Your task to perform on an android device: Search for seafood restaurants on Google Maps Image 0: 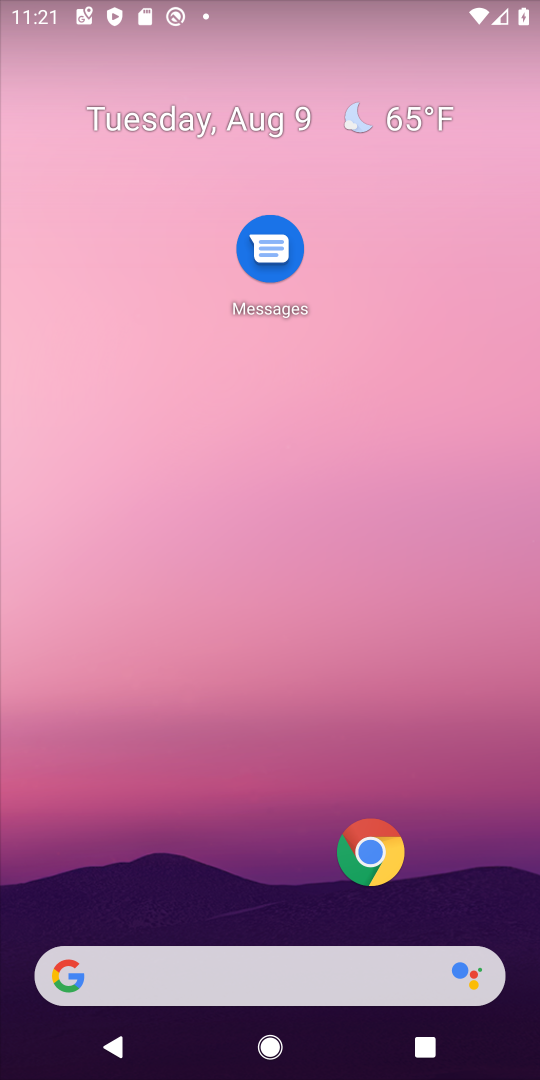
Step 0: drag from (251, 881) to (260, 265)
Your task to perform on an android device: Search for seafood restaurants on Google Maps Image 1: 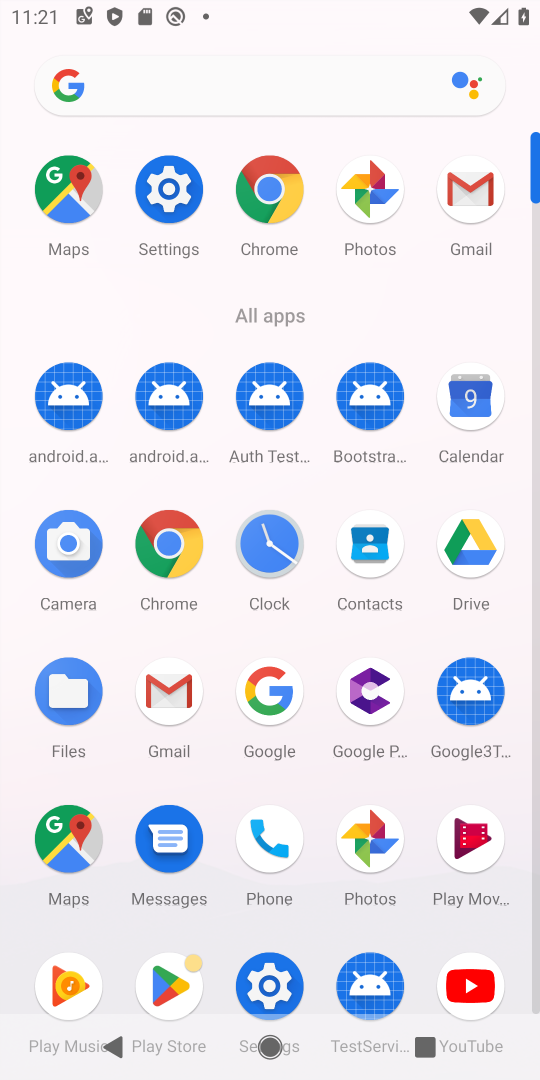
Step 1: click (67, 186)
Your task to perform on an android device: Search for seafood restaurants on Google Maps Image 2: 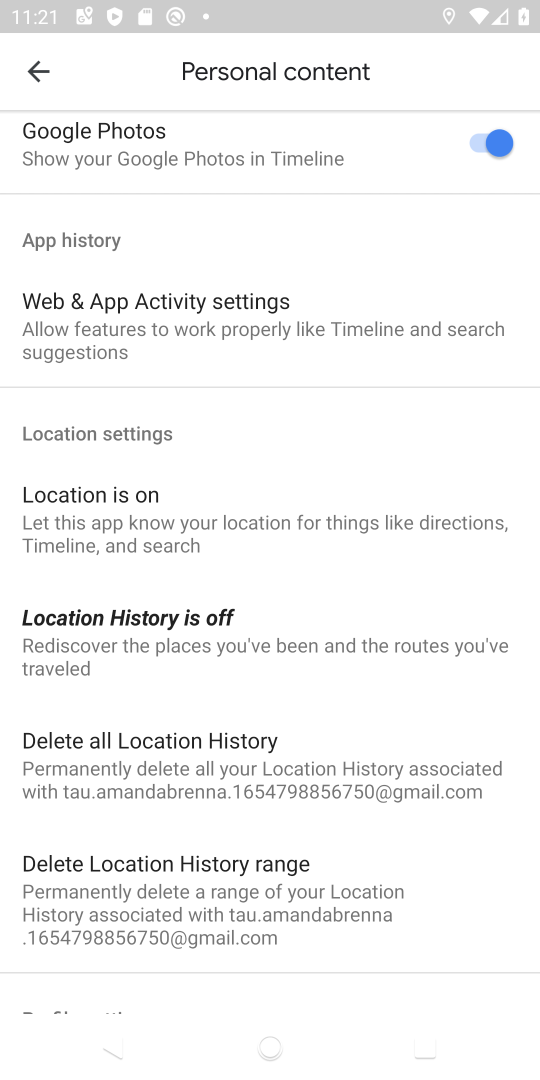
Step 2: click (51, 53)
Your task to perform on an android device: Search for seafood restaurants on Google Maps Image 3: 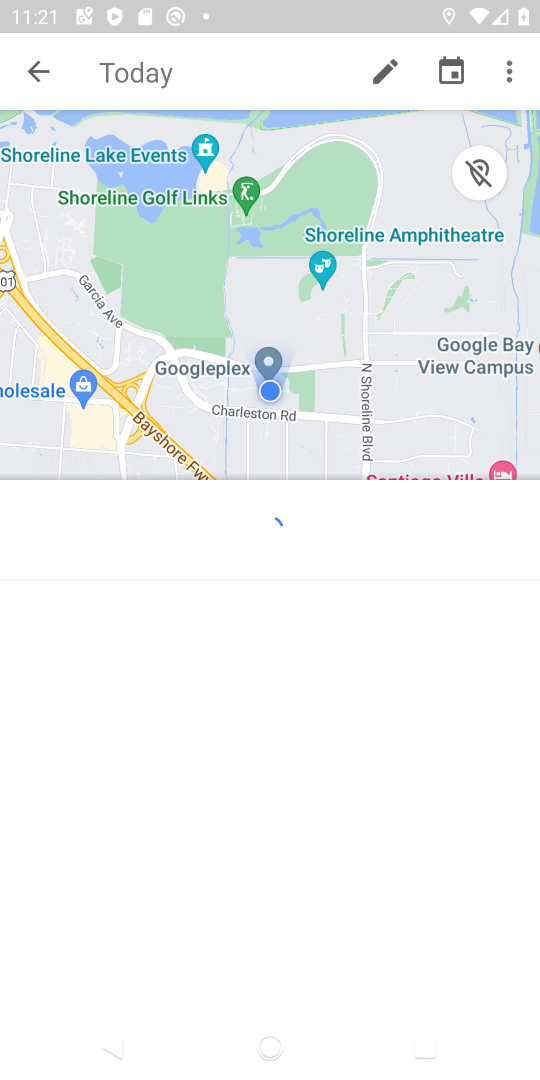
Step 3: click (51, 53)
Your task to perform on an android device: Search for seafood restaurants on Google Maps Image 4: 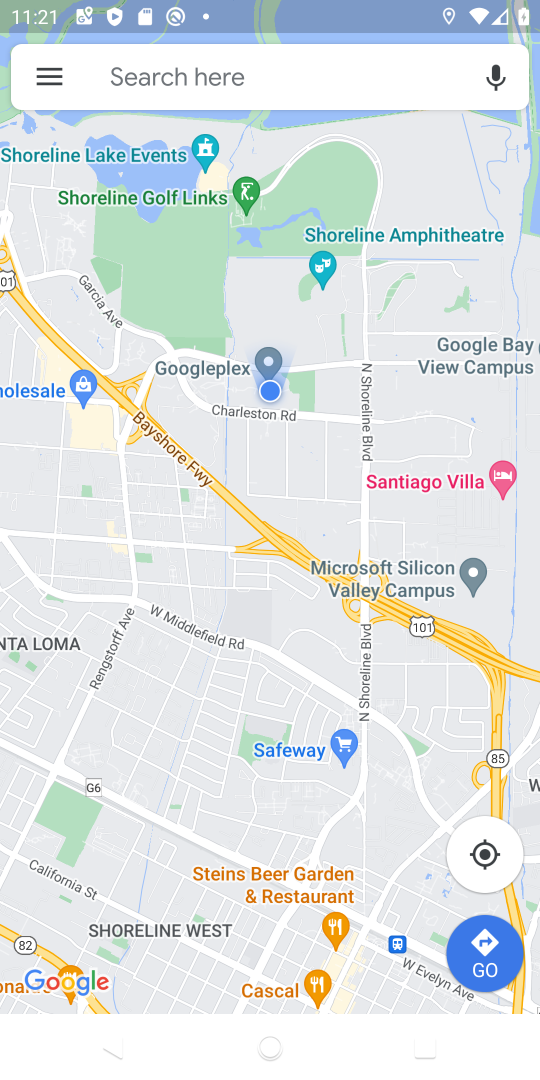
Step 4: click (138, 74)
Your task to perform on an android device: Search for seafood restaurants on Google Maps Image 5: 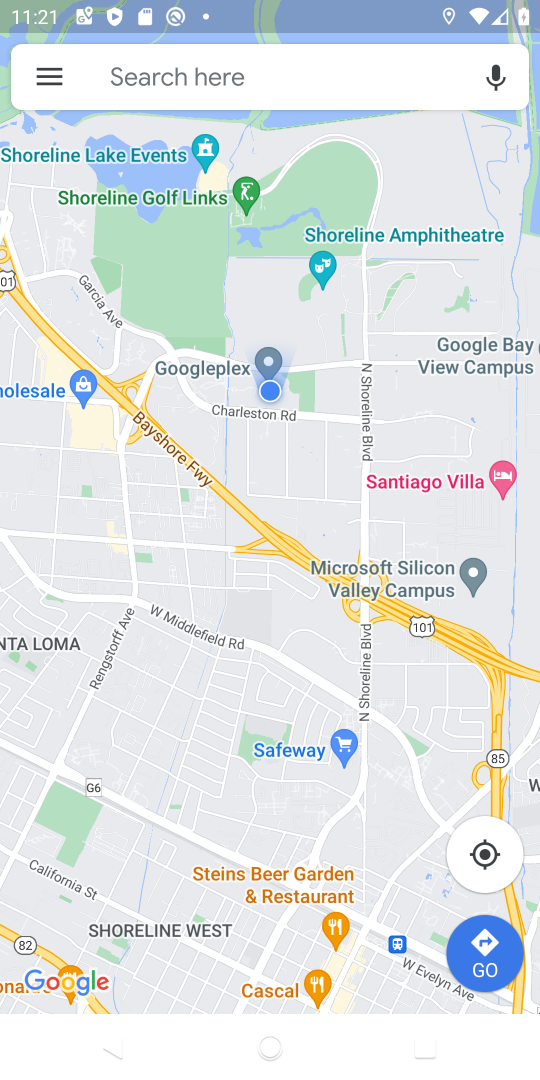
Step 5: click (138, 74)
Your task to perform on an android device: Search for seafood restaurants on Google Maps Image 6: 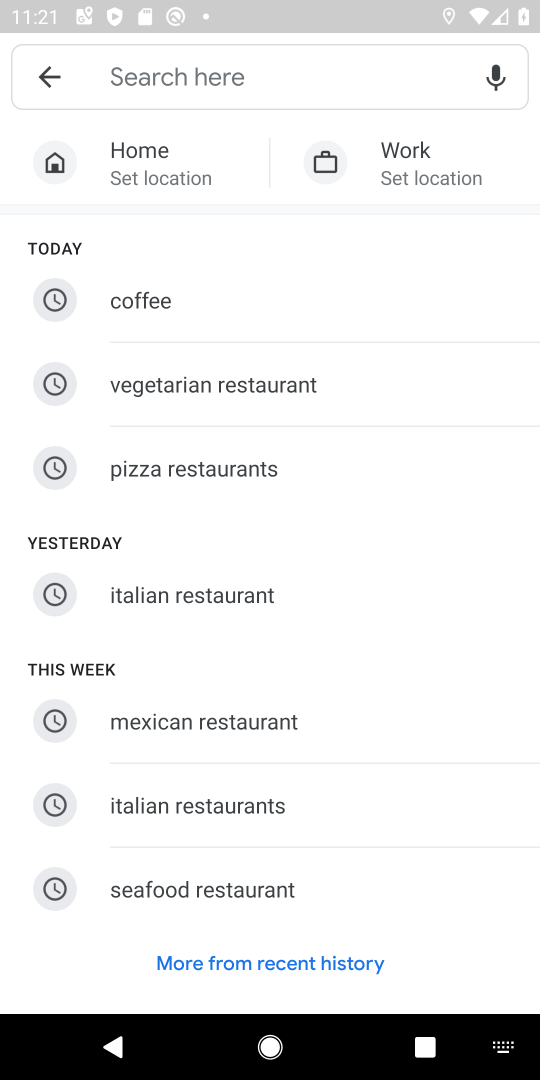
Step 6: click (165, 895)
Your task to perform on an android device: Search for seafood restaurants on Google Maps Image 7: 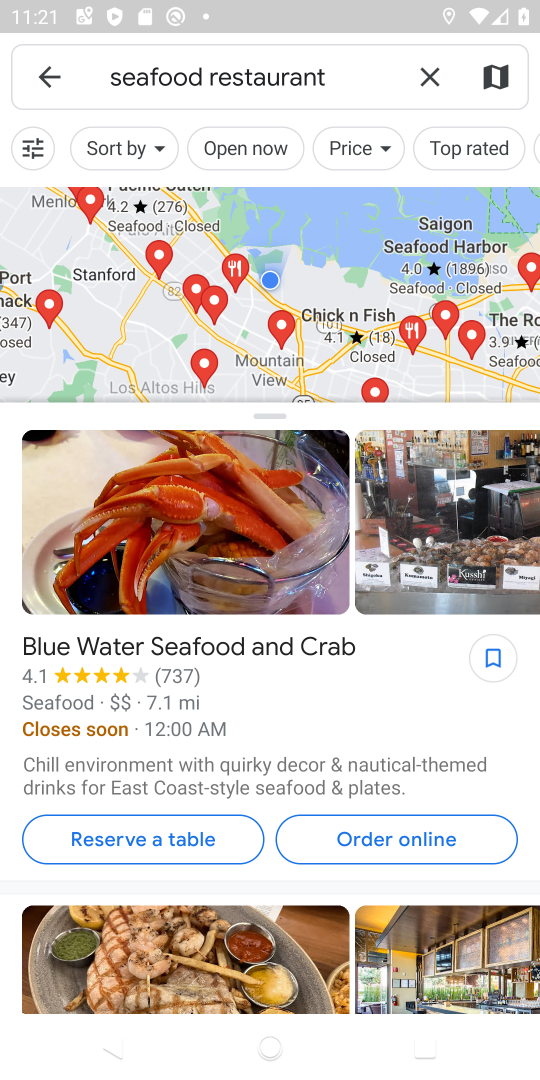
Step 7: task complete